Your task to perform on an android device: Open Google Image 0: 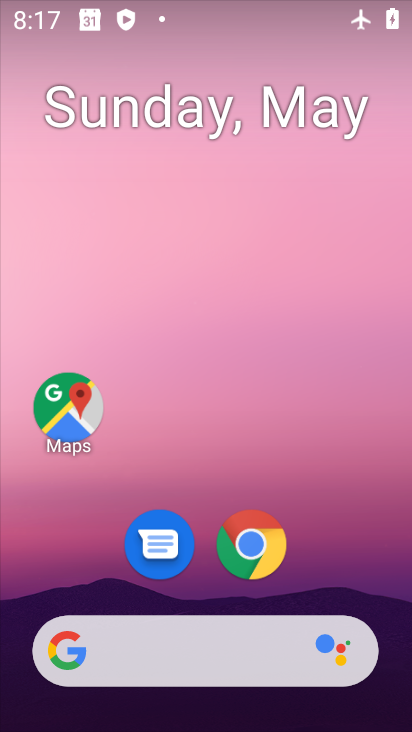
Step 0: drag from (355, 596) to (293, 66)
Your task to perform on an android device: Open Google Image 1: 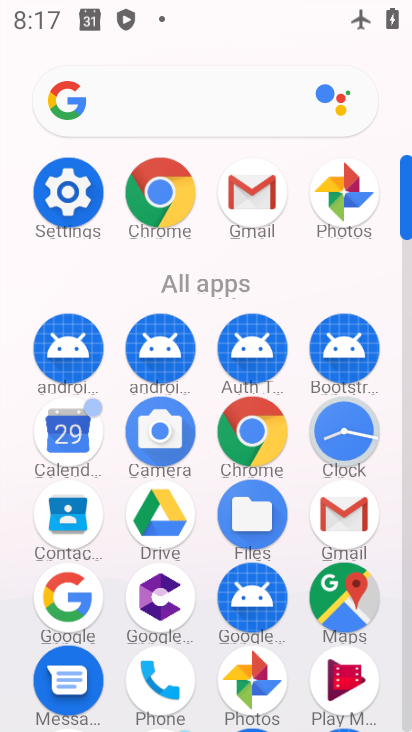
Step 1: click (83, 101)
Your task to perform on an android device: Open Google Image 2: 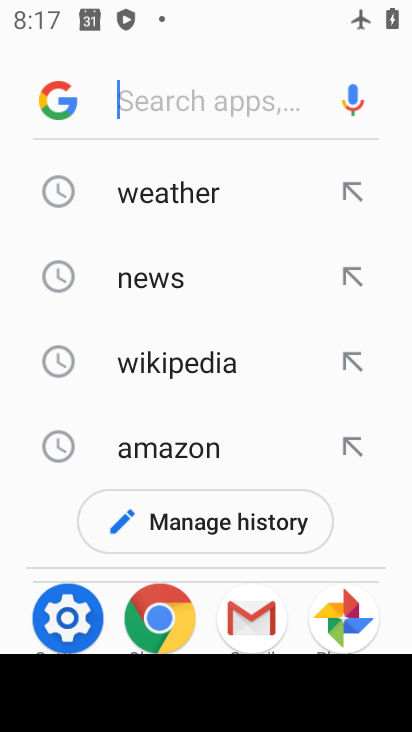
Step 2: click (67, 105)
Your task to perform on an android device: Open Google Image 3: 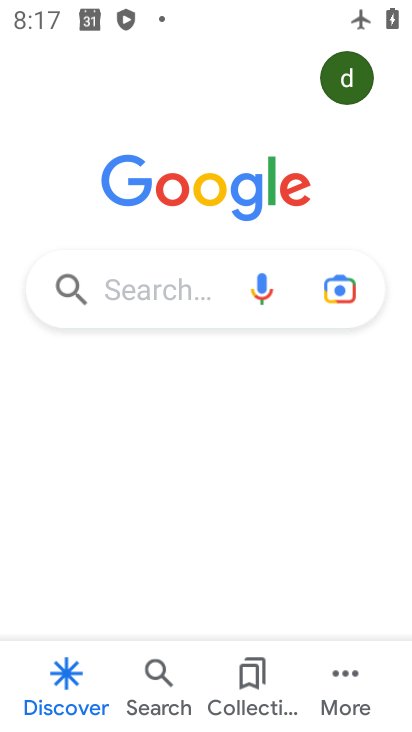
Step 3: task complete